Your task to perform on an android device: make emails show in primary in the gmail app Image 0: 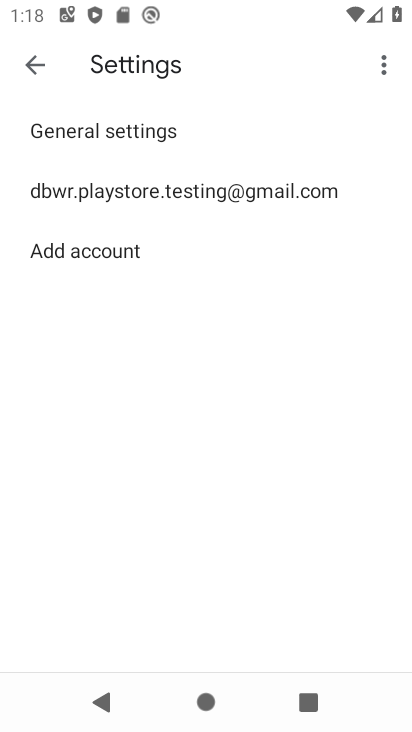
Step 0: type "c"
Your task to perform on an android device: make emails show in primary in the gmail app Image 1: 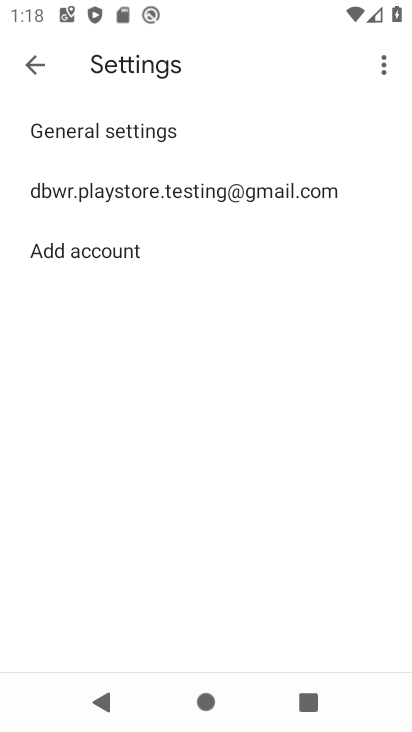
Step 1: press home button
Your task to perform on an android device: make emails show in primary in the gmail app Image 2: 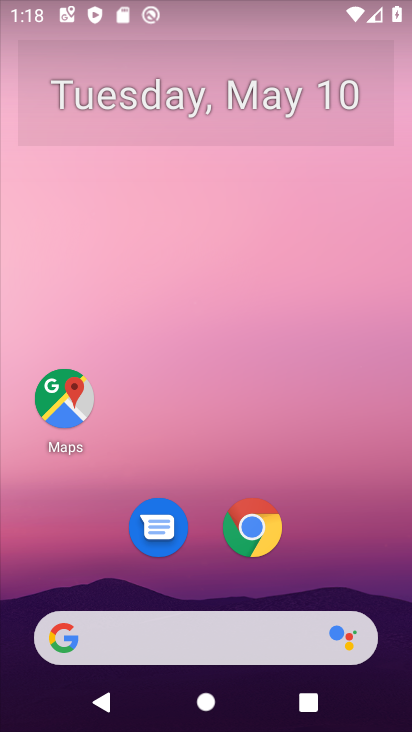
Step 2: drag from (132, 571) to (164, 286)
Your task to perform on an android device: make emails show in primary in the gmail app Image 3: 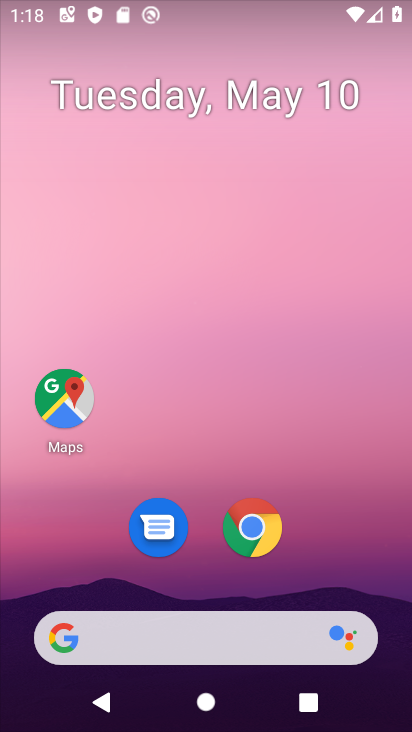
Step 3: drag from (159, 592) to (186, 244)
Your task to perform on an android device: make emails show in primary in the gmail app Image 4: 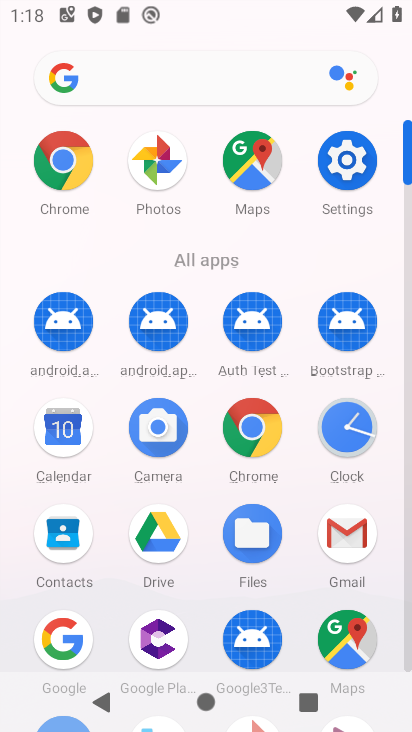
Step 4: click (350, 546)
Your task to perform on an android device: make emails show in primary in the gmail app Image 5: 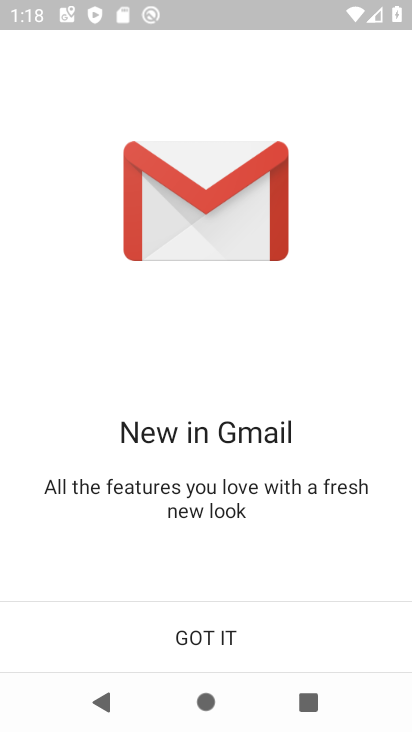
Step 5: click (178, 642)
Your task to perform on an android device: make emails show in primary in the gmail app Image 6: 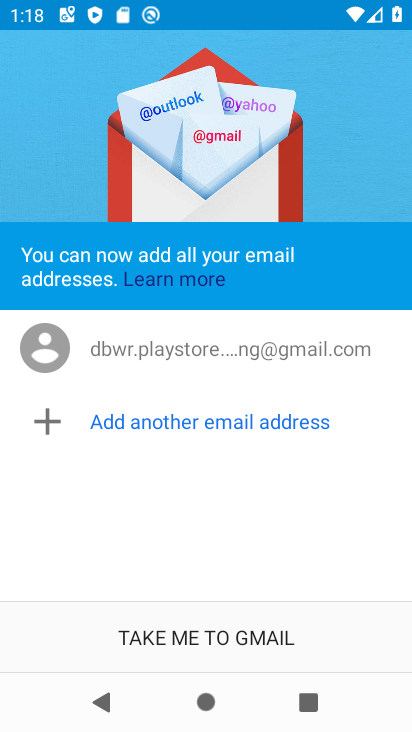
Step 6: click (163, 650)
Your task to perform on an android device: make emails show in primary in the gmail app Image 7: 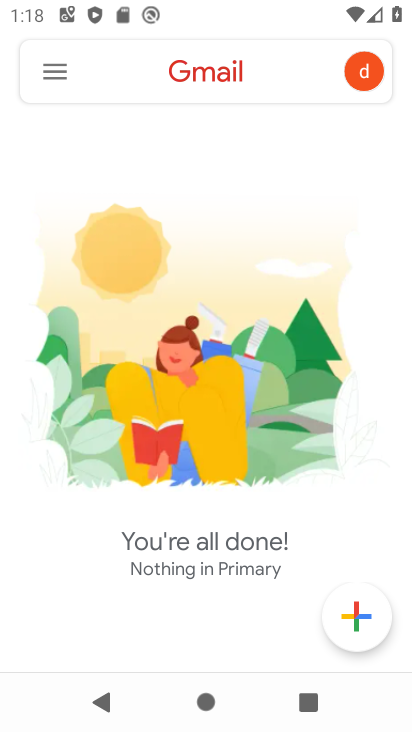
Step 7: click (56, 74)
Your task to perform on an android device: make emails show in primary in the gmail app Image 8: 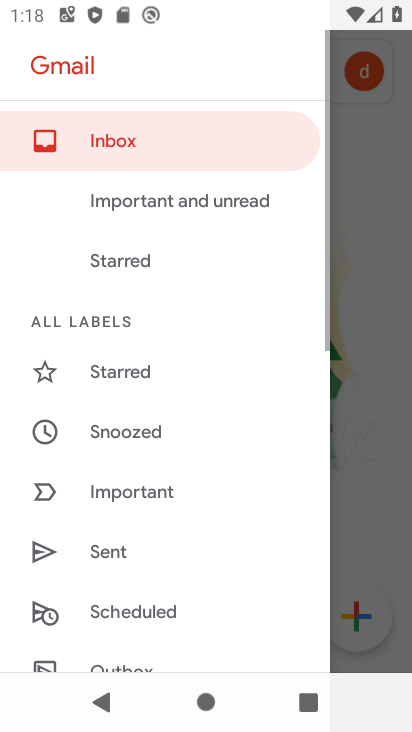
Step 8: drag from (132, 597) to (209, 206)
Your task to perform on an android device: make emails show in primary in the gmail app Image 9: 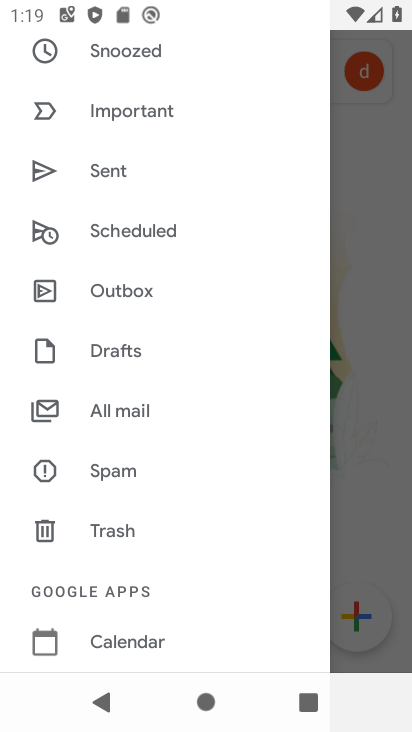
Step 9: drag from (121, 618) to (147, 283)
Your task to perform on an android device: make emails show in primary in the gmail app Image 10: 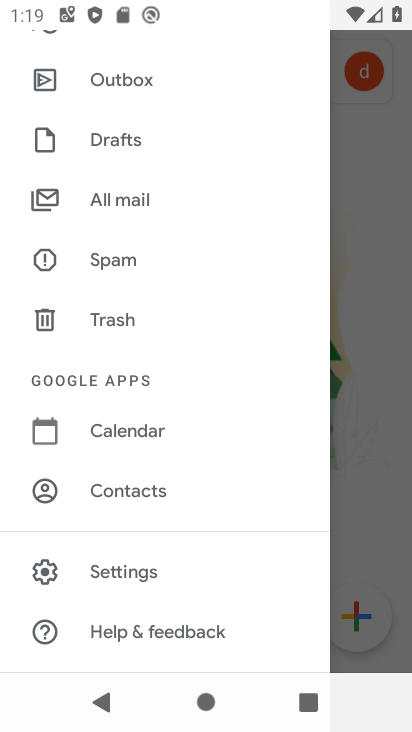
Step 10: click (147, 572)
Your task to perform on an android device: make emails show in primary in the gmail app Image 11: 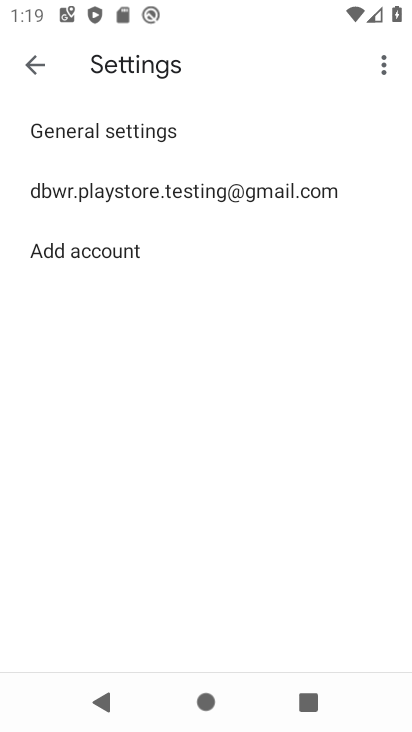
Step 11: click (130, 192)
Your task to perform on an android device: make emails show in primary in the gmail app Image 12: 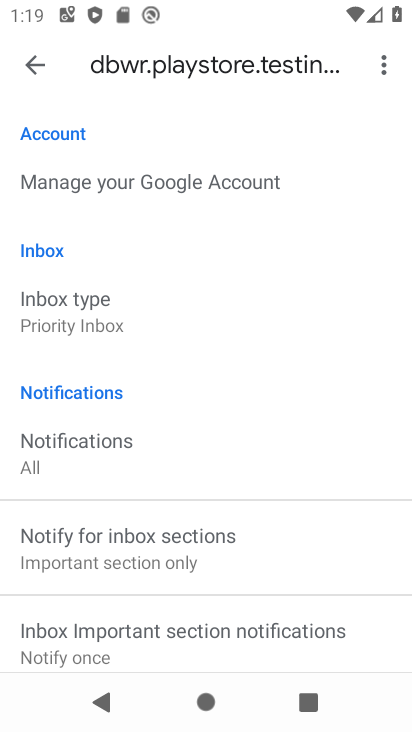
Step 12: click (73, 317)
Your task to perform on an android device: make emails show in primary in the gmail app Image 13: 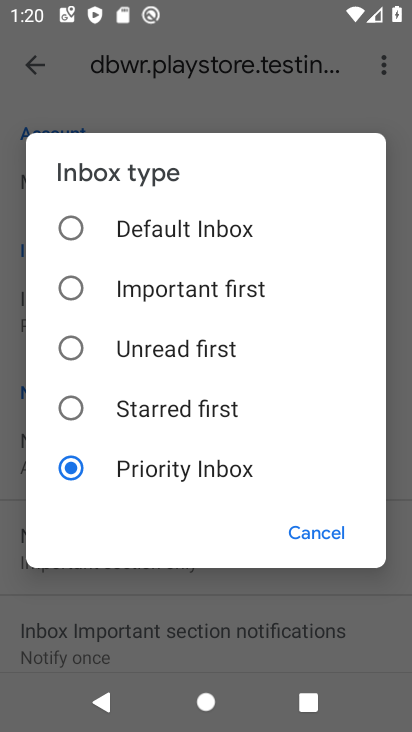
Step 13: click (79, 240)
Your task to perform on an android device: make emails show in primary in the gmail app Image 14: 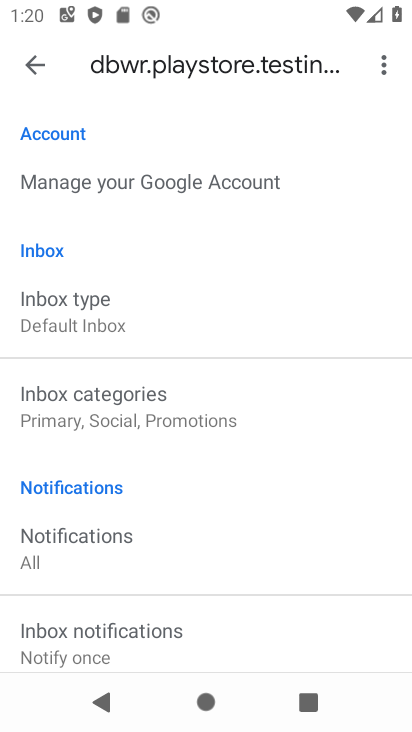
Step 14: click (51, 309)
Your task to perform on an android device: make emails show in primary in the gmail app Image 15: 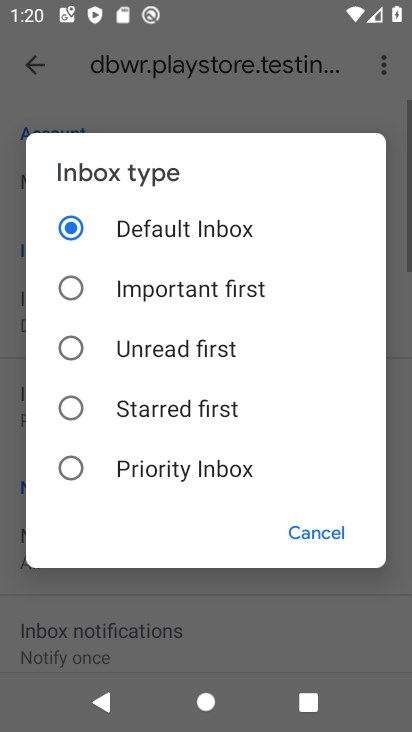
Step 15: click (142, 460)
Your task to perform on an android device: make emails show in primary in the gmail app Image 16: 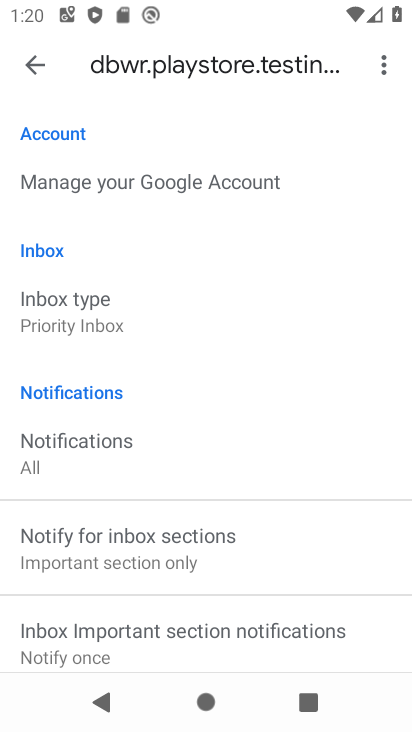
Step 16: click (91, 327)
Your task to perform on an android device: make emails show in primary in the gmail app Image 17: 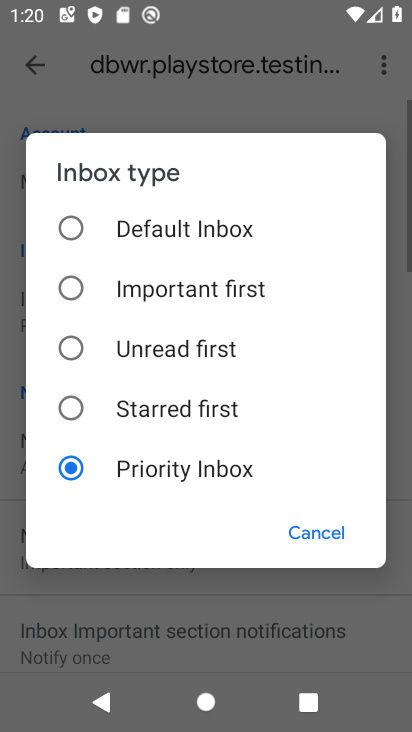
Step 17: click (101, 219)
Your task to perform on an android device: make emails show in primary in the gmail app Image 18: 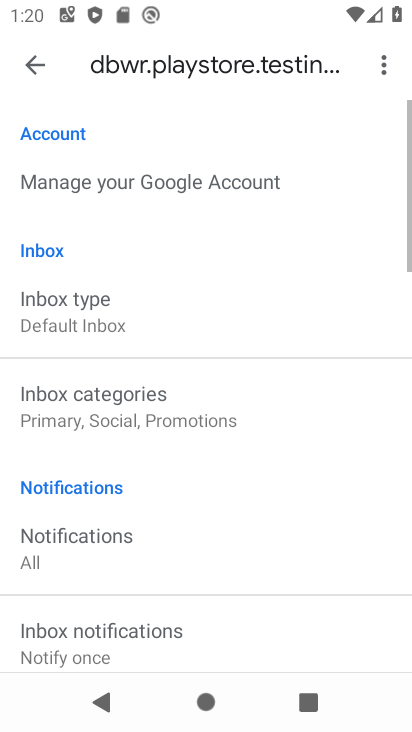
Step 18: click (44, 69)
Your task to perform on an android device: make emails show in primary in the gmail app Image 19: 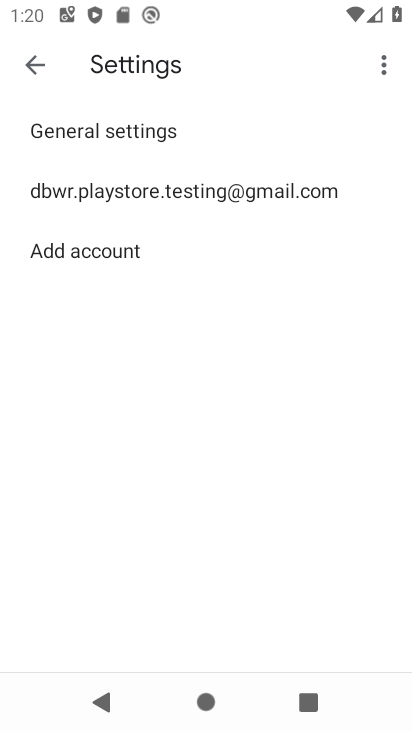
Step 19: click (42, 71)
Your task to perform on an android device: make emails show in primary in the gmail app Image 20: 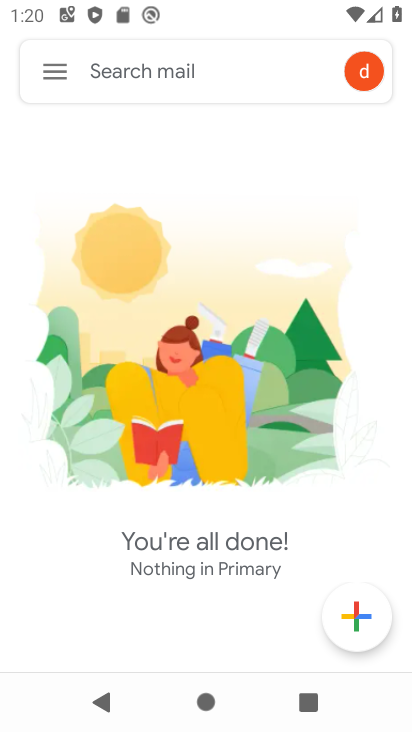
Step 20: click (42, 72)
Your task to perform on an android device: make emails show in primary in the gmail app Image 21: 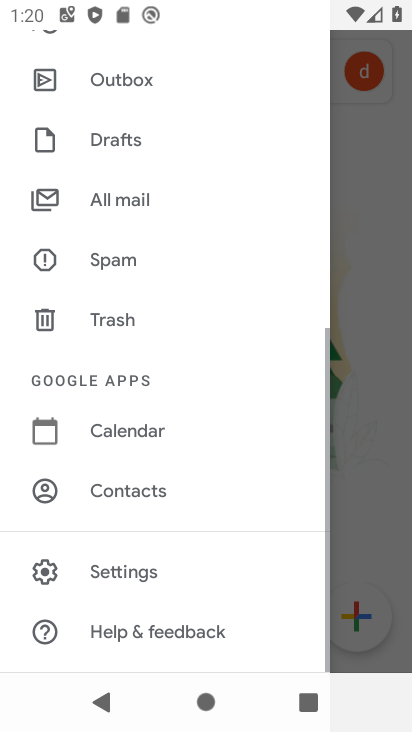
Step 21: drag from (81, 165) to (35, 681)
Your task to perform on an android device: make emails show in primary in the gmail app Image 22: 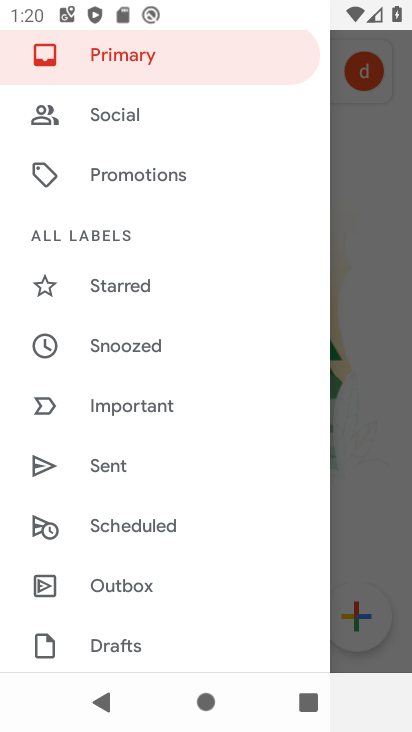
Step 22: drag from (131, 152) to (132, 427)
Your task to perform on an android device: make emails show in primary in the gmail app Image 23: 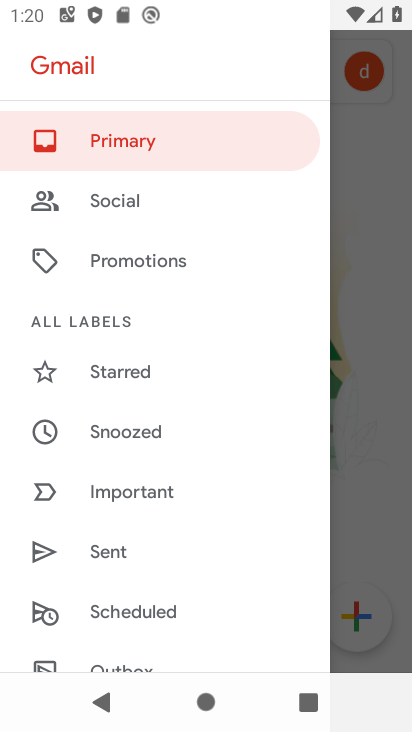
Step 23: click (187, 141)
Your task to perform on an android device: make emails show in primary in the gmail app Image 24: 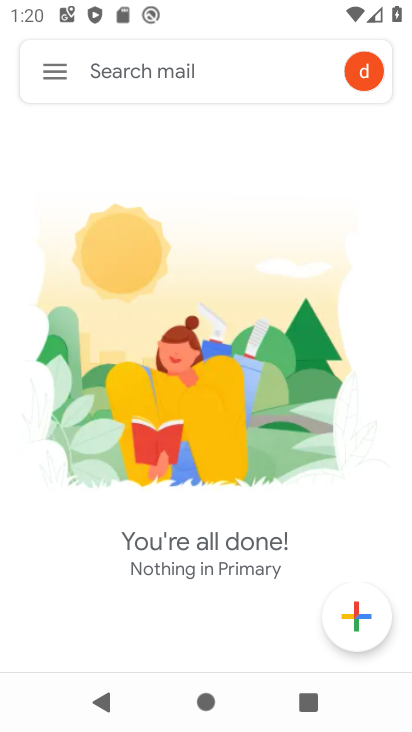
Step 24: task complete